Your task to perform on an android device: turn off sleep mode Image 0: 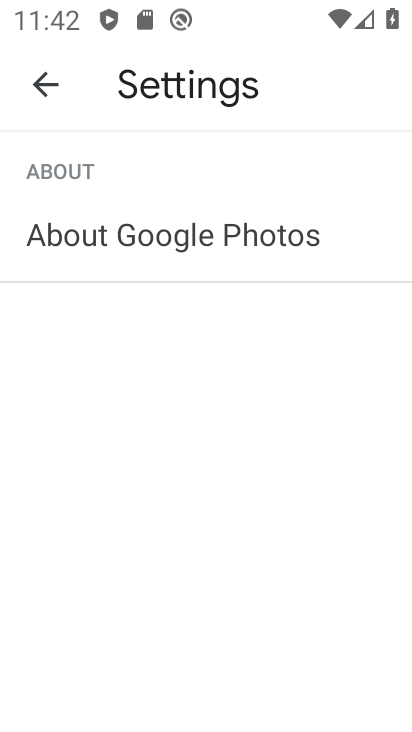
Step 0: press home button
Your task to perform on an android device: turn off sleep mode Image 1: 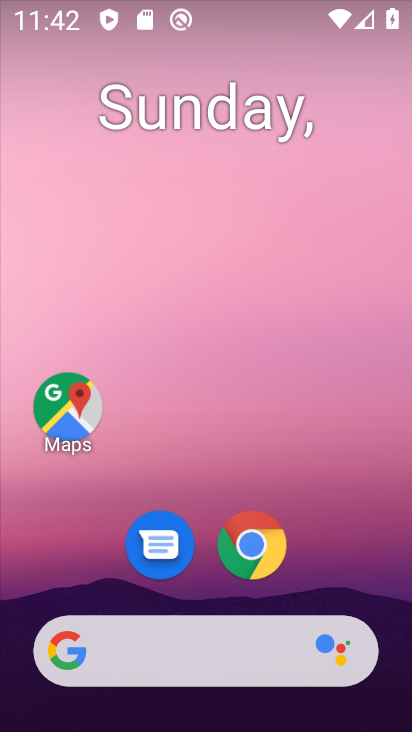
Step 1: drag from (377, 572) to (356, 170)
Your task to perform on an android device: turn off sleep mode Image 2: 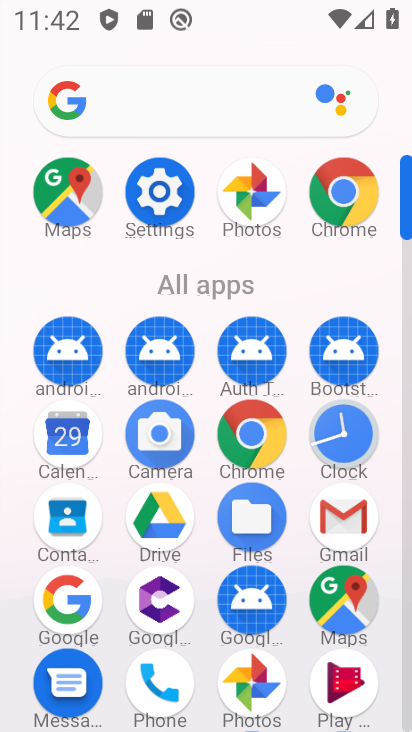
Step 2: click (177, 219)
Your task to perform on an android device: turn off sleep mode Image 3: 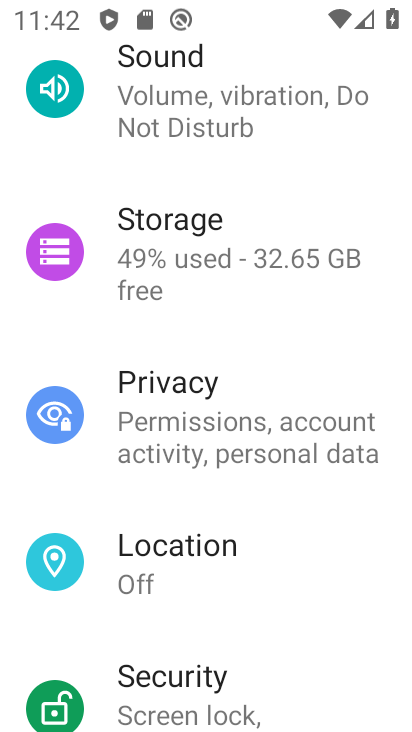
Step 3: drag from (340, 187) to (346, 361)
Your task to perform on an android device: turn off sleep mode Image 4: 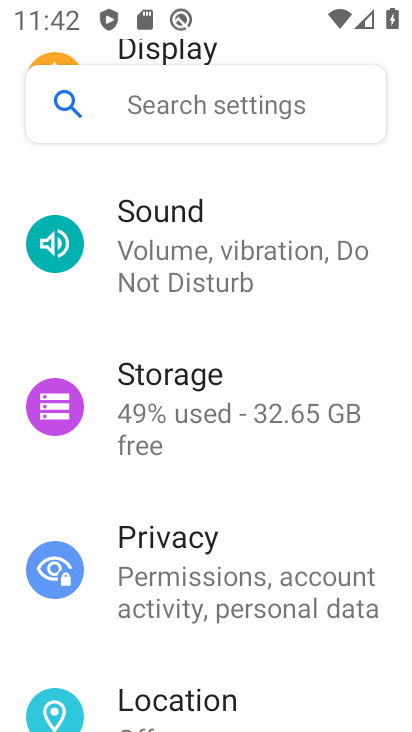
Step 4: drag from (366, 184) to (379, 392)
Your task to perform on an android device: turn off sleep mode Image 5: 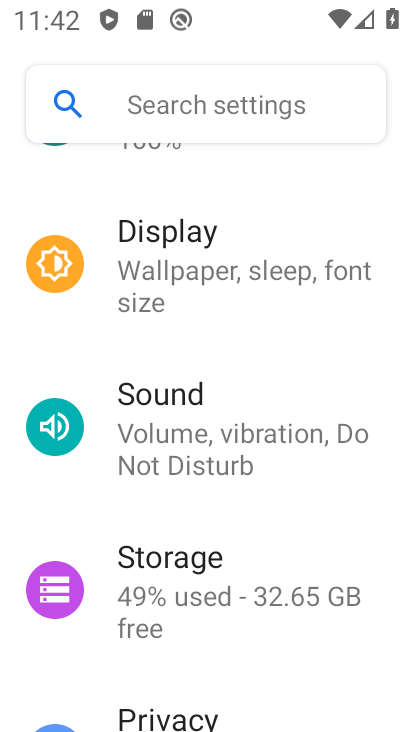
Step 5: drag from (377, 181) to (370, 367)
Your task to perform on an android device: turn off sleep mode Image 6: 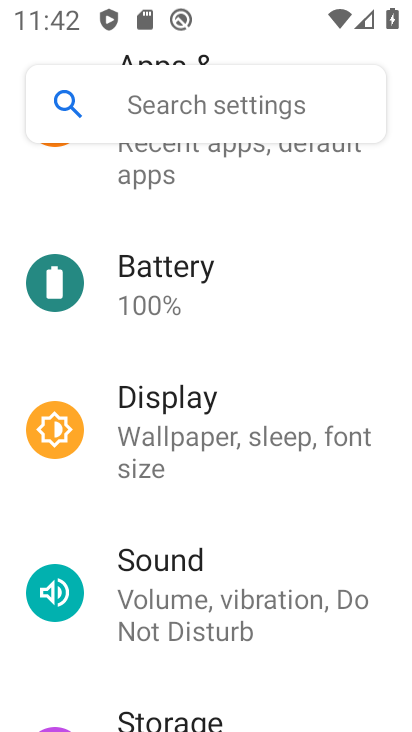
Step 6: drag from (357, 257) to (358, 402)
Your task to perform on an android device: turn off sleep mode Image 7: 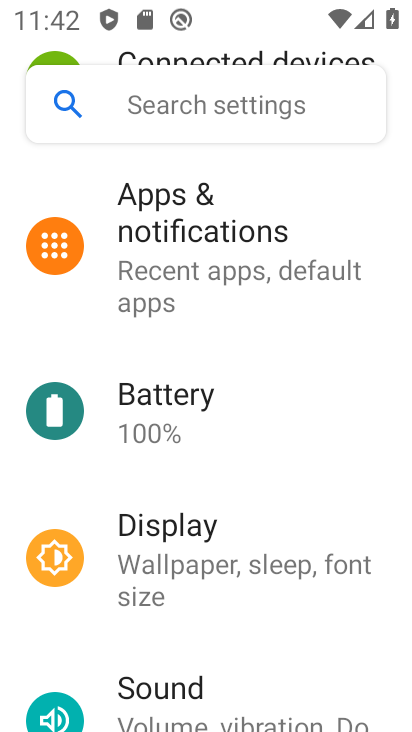
Step 7: drag from (363, 194) to (372, 409)
Your task to perform on an android device: turn off sleep mode Image 8: 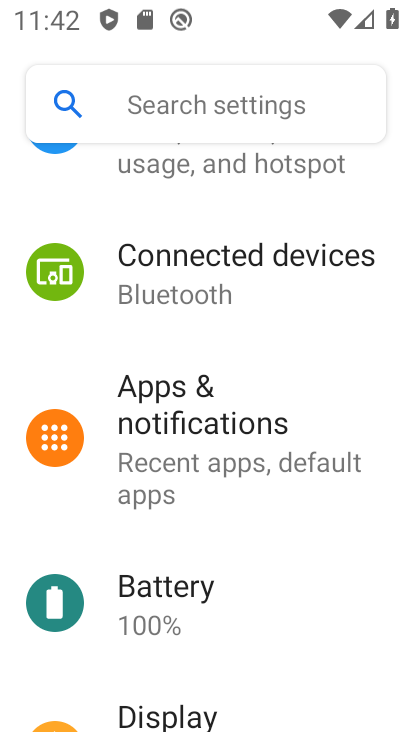
Step 8: drag from (384, 178) to (376, 400)
Your task to perform on an android device: turn off sleep mode Image 9: 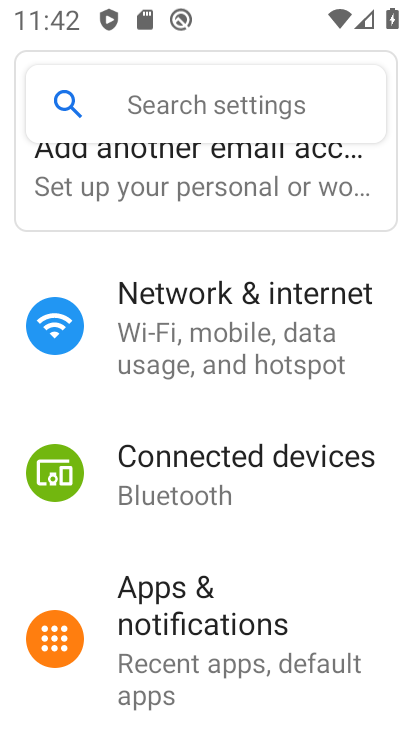
Step 9: drag from (371, 238) to (361, 471)
Your task to perform on an android device: turn off sleep mode Image 10: 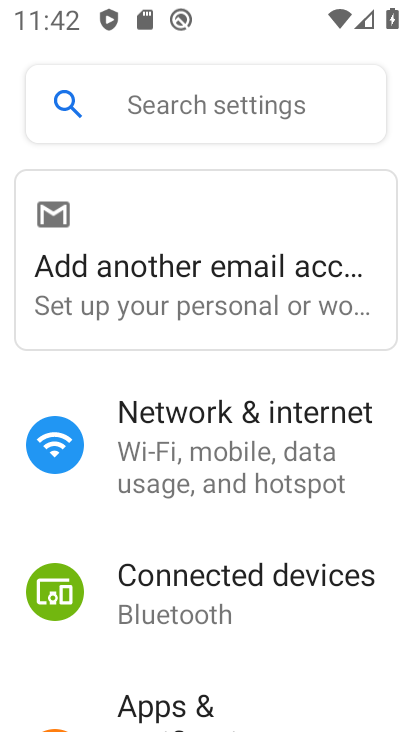
Step 10: drag from (369, 504) to (379, 397)
Your task to perform on an android device: turn off sleep mode Image 11: 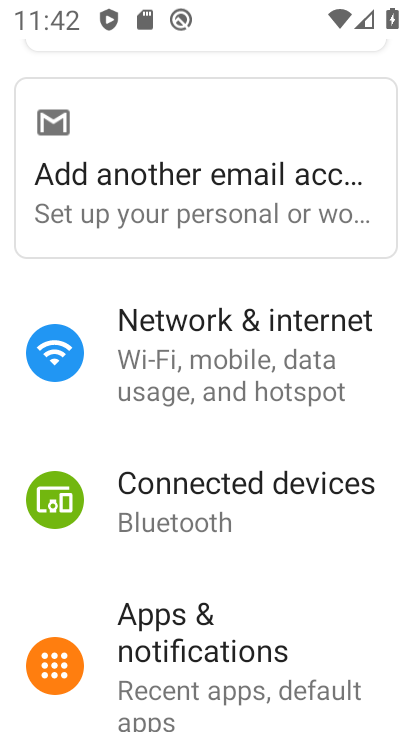
Step 11: drag from (355, 550) to (352, 389)
Your task to perform on an android device: turn off sleep mode Image 12: 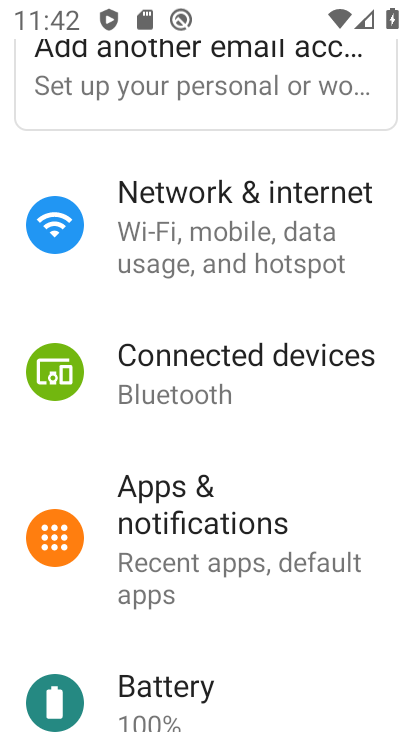
Step 12: drag from (335, 609) to (317, 317)
Your task to perform on an android device: turn off sleep mode Image 13: 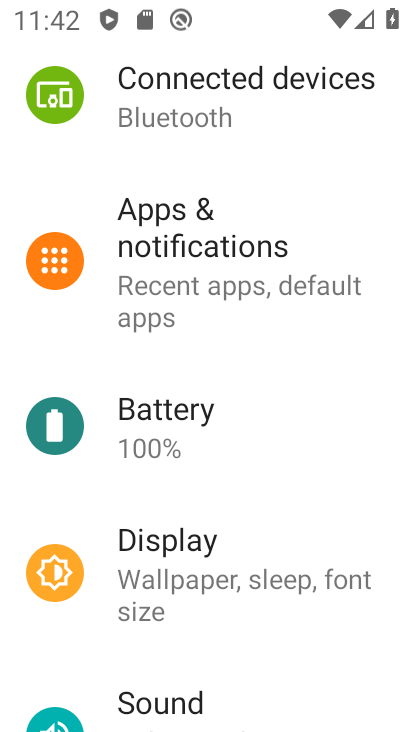
Step 13: drag from (276, 624) to (288, 383)
Your task to perform on an android device: turn off sleep mode Image 14: 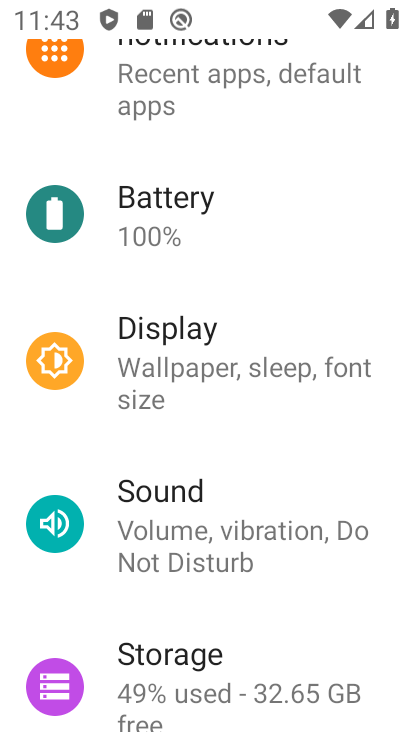
Step 14: click (291, 348)
Your task to perform on an android device: turn off sleep mode Image 15: 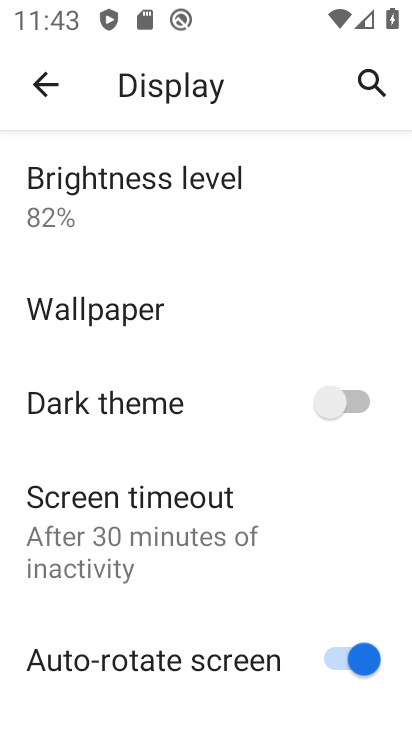
Step 15: task complete